Your task to perform on an android device: turn off improve location accuracy Image 0: 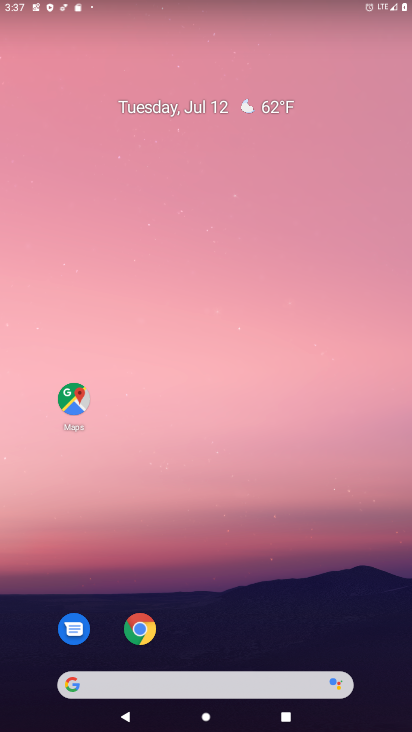
Step 0: drag from (210, 663) to (185, 103)
Your task to perform on an android device: turn off improve location accuracy Image 1: 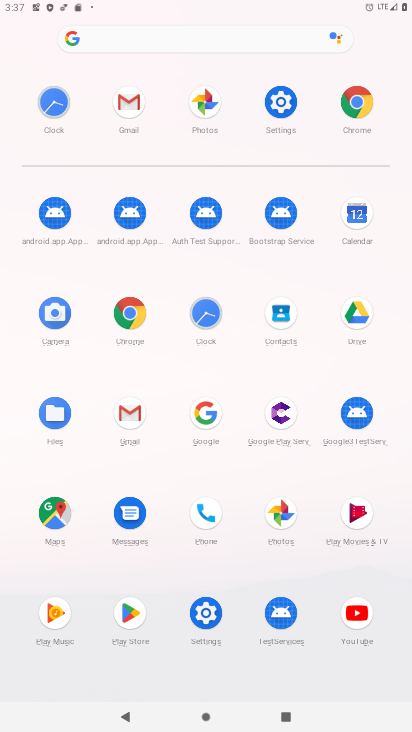
Step 1: click (264, 93)
Your task to perform on an android device: turn off improve location accuracy Image 2: 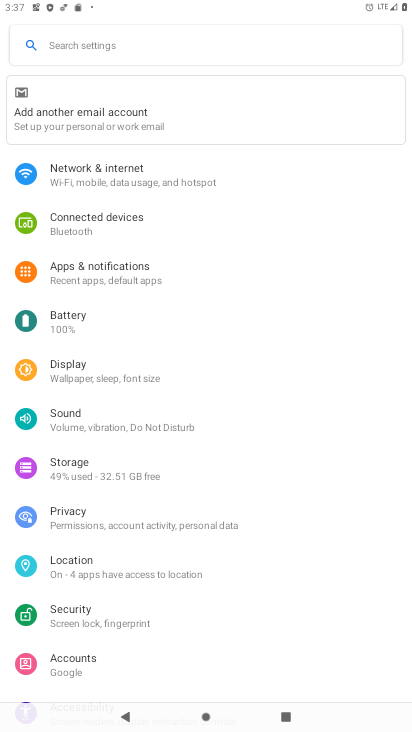
Step 2: click (56, 565)
Your task to perform on an android device: turn off improve location accuracy Image 3: 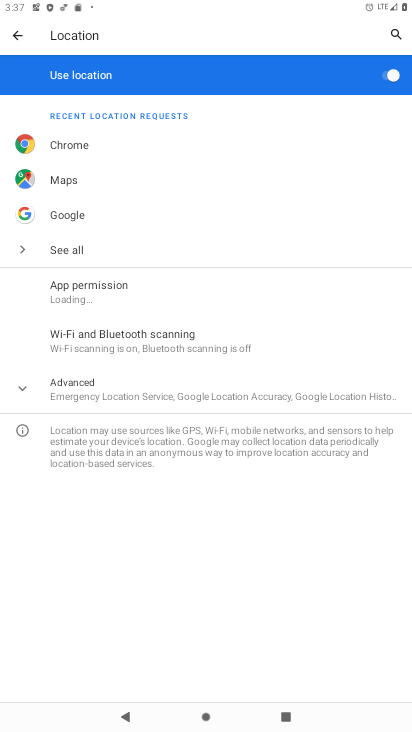
Step 3: click (72, 398)
Your task to perform on an android device: turn off improve location accuracy Image 4: 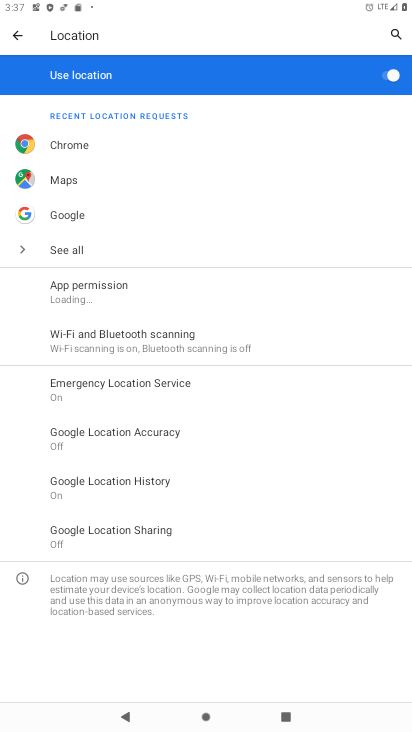
Step 4: click (159, 437)
Your task to perform on an android device: turn off improve location accuracy Image 5: 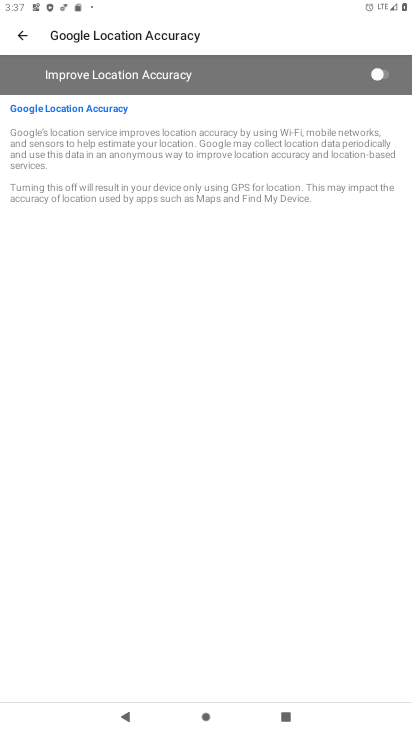
Step 5: task complete